Your task to perform on an android device: open app "Contacts" Image 0: 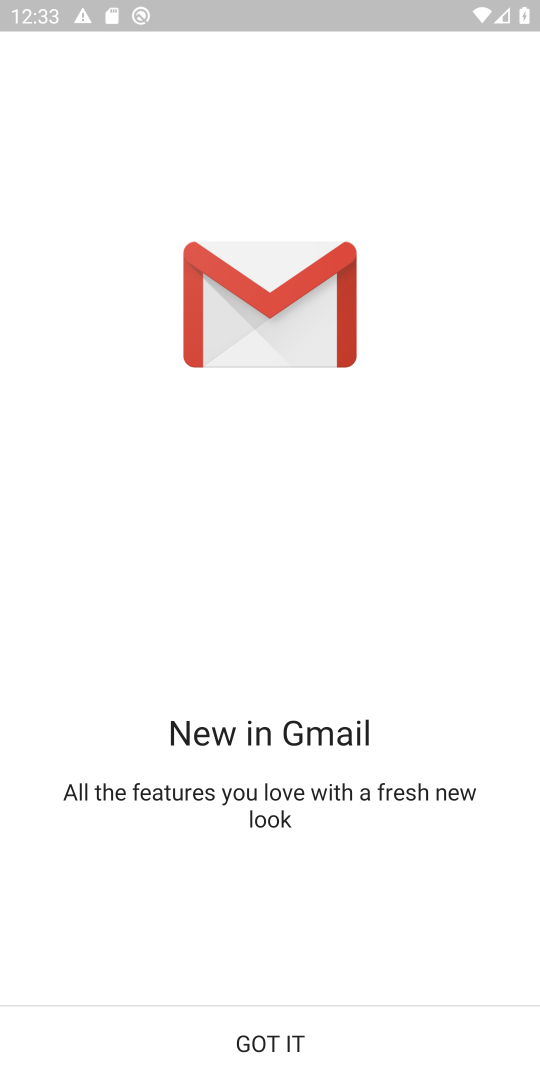
Step 0: press home button
Your task to perform on an android device: open app "Contacts" Image 1: 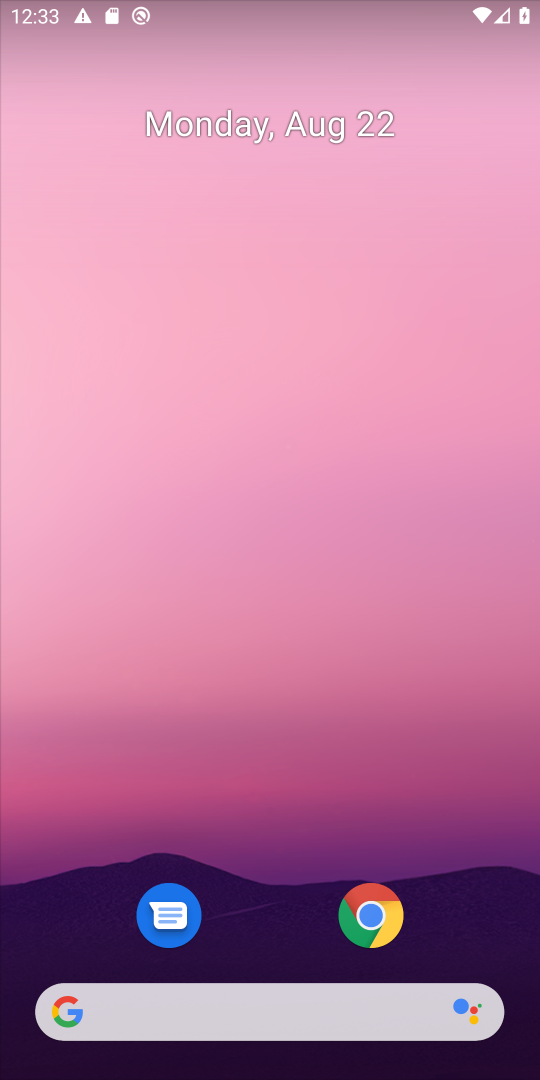
Step 1: drag from (255, 975) to (419, 763)
Your task to perform on an android device: open app "Contacts" Image 2: 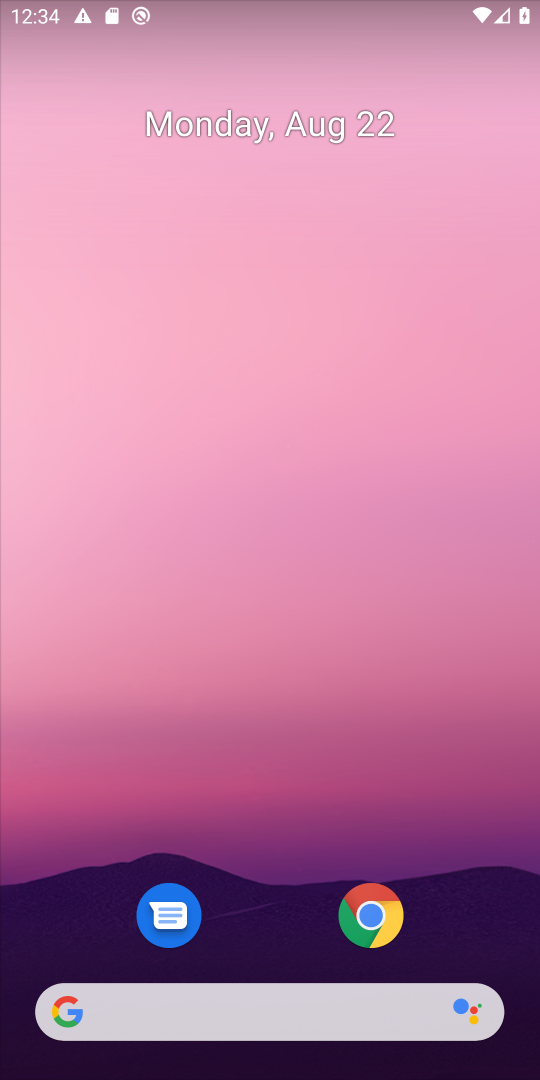
Step 2: drag from (279, 942) to (383, 613)
Your task to perform on an android device: open app "Contacts" Image 3: 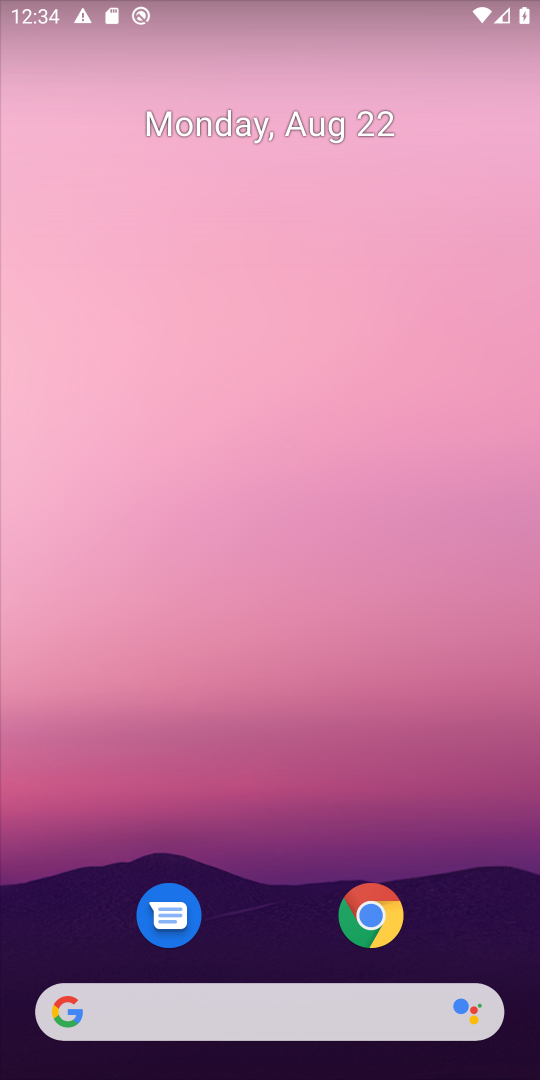
Step 3: drag from (261, 943) to (426, 57)
Your task to perform on an android device: open app "Contacts" Image 4: 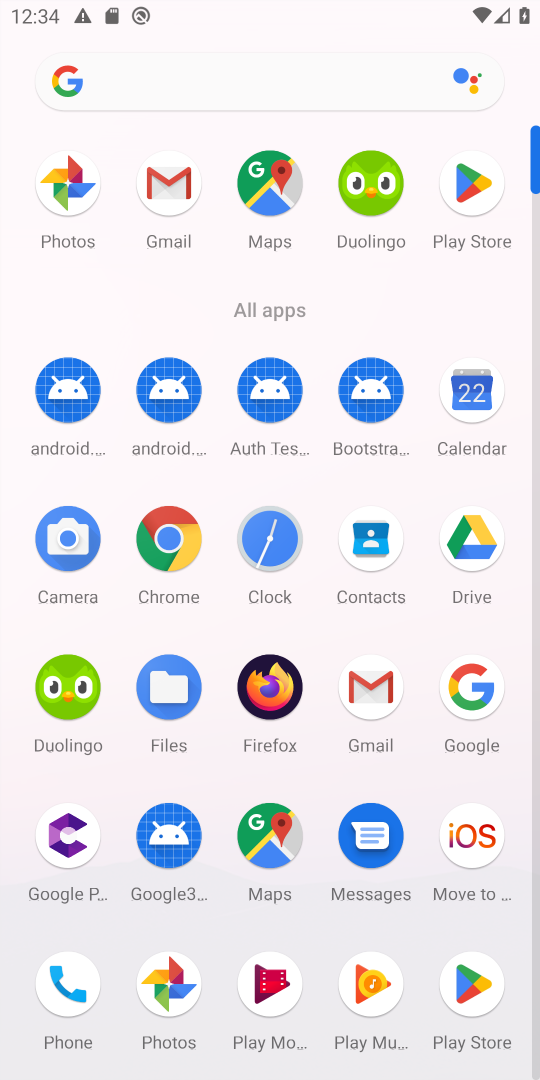
Step 4: click (372, 544)
Your task to perform on an android device: open app "Contacts" Image 5: 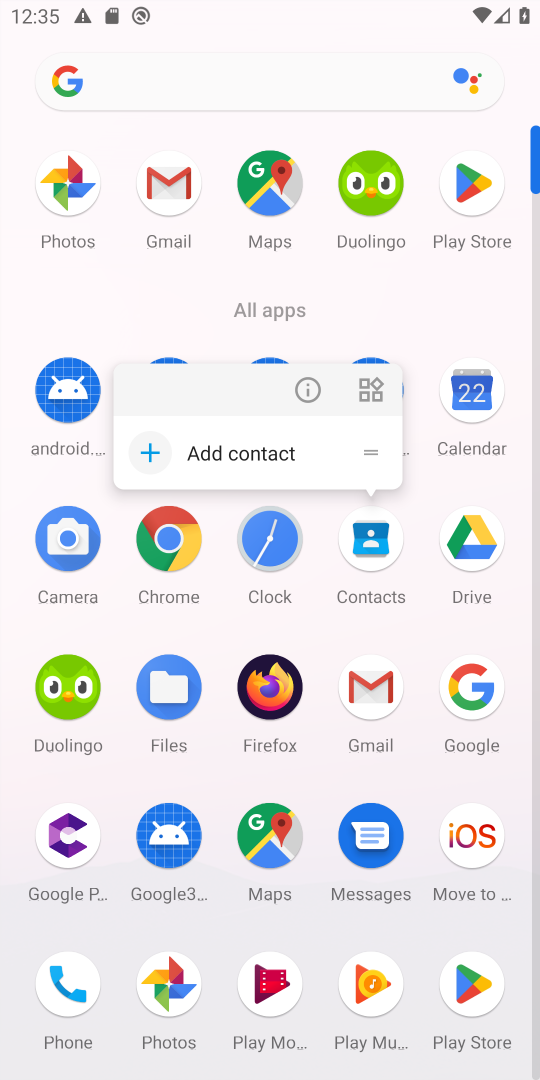
Step 5: click (462, 443)
Your task to perform on an android device: open app "Contacts" Image 6: 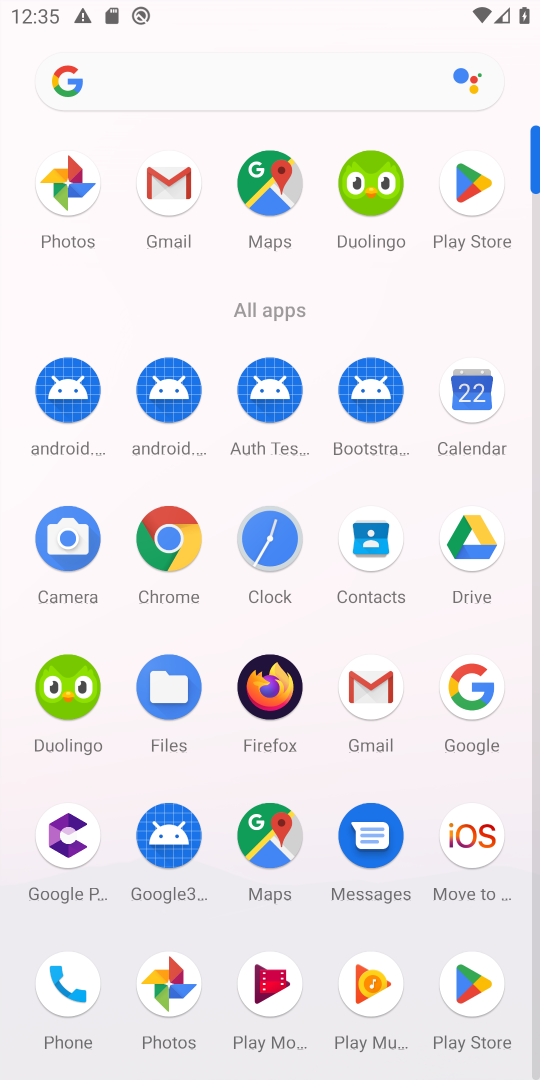
Step 6: click (376, 555)
Your task to perform on an android device: open app "Contacts" Image 7: 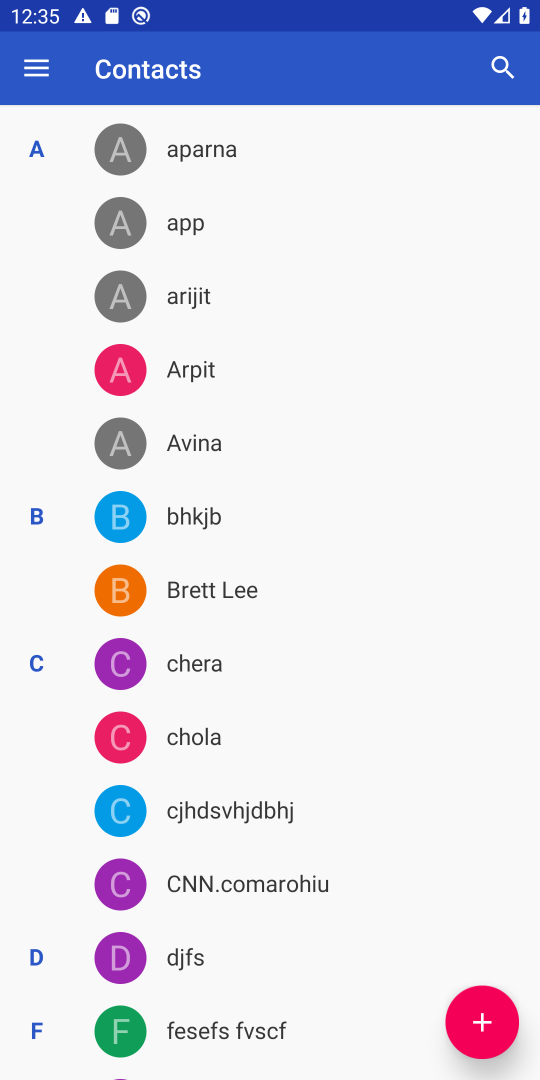
Step 7: task complete